Your task to perform on an android device: Go to eBay Image 0: 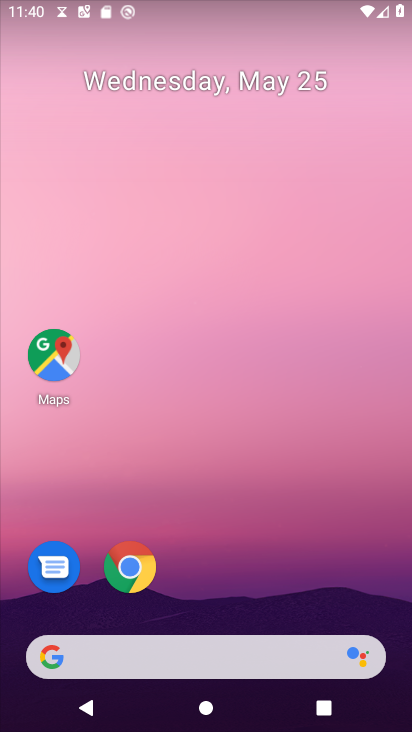
Step 0: click (114, 573)
Your task to perform on an android device: Go to eBay Image 1: 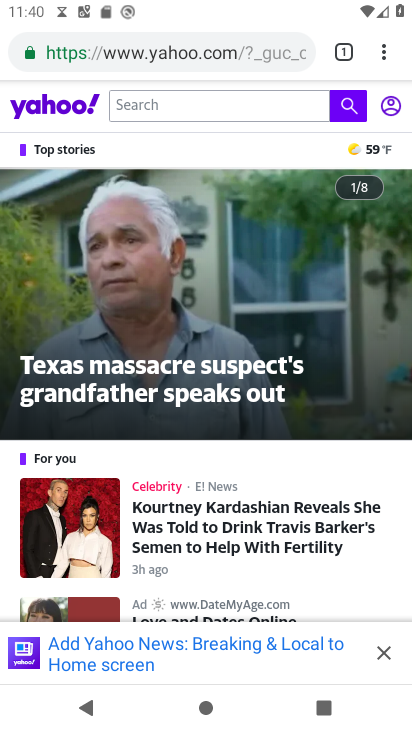
Step 1: click (346, 58)
Your task to perform on an android device: Go to eBay Image 2: 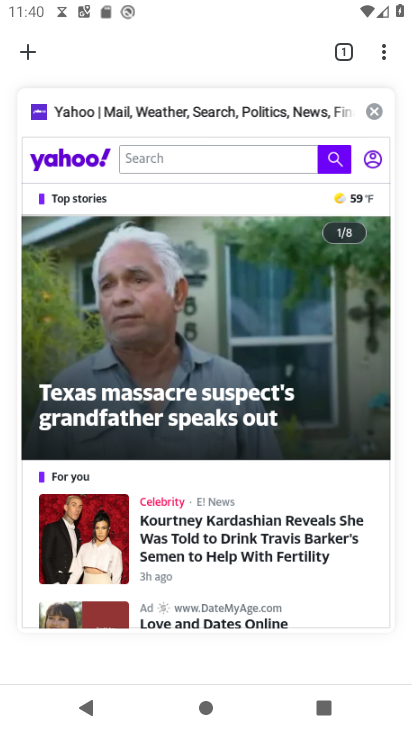
Step 2: click (30, 40)
Your task to perform on an android device: Go to eBay Image 3: 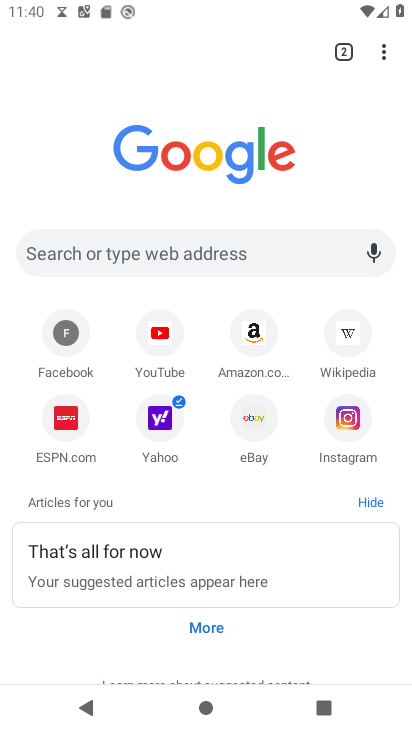
Step 3: click (251, 419)
Your task to perform on an android device: Go to eBay Image 4: 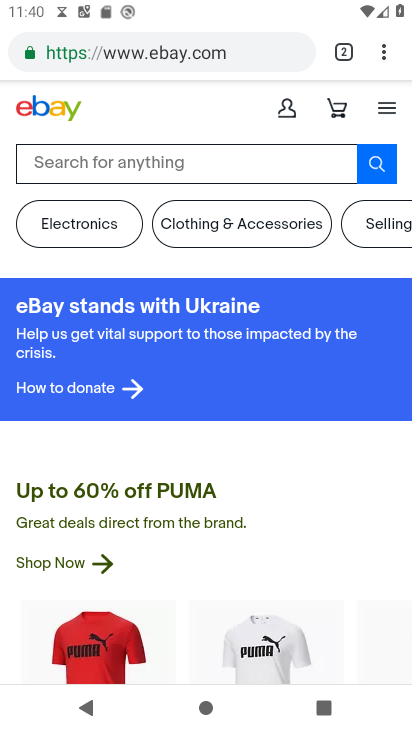
Step 4: task complete